Your task to perform on an android device: Go to accessibility settings Image 0: 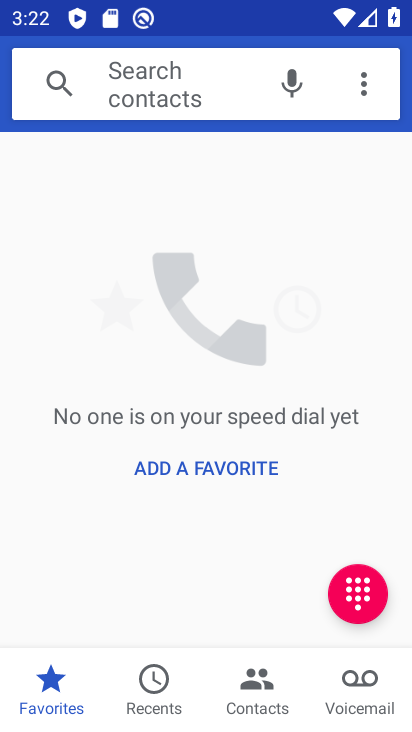
Step 0: press home button
Your task to perform on an android device: Go to accessibility settings Image 1: 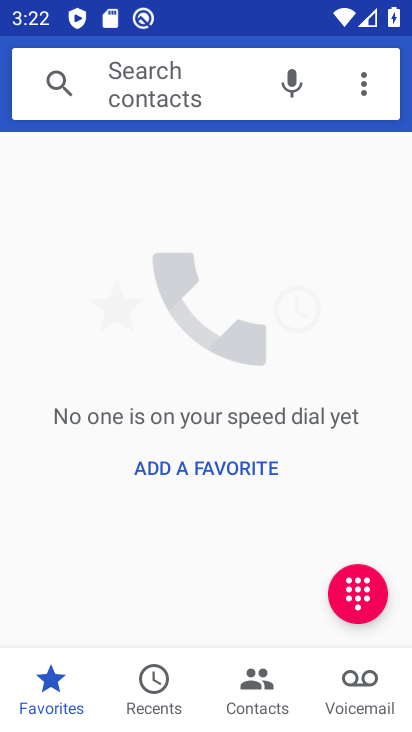
Step 1: press home button
Your task to perform on an android device: Go to accessibility settings Image 2: 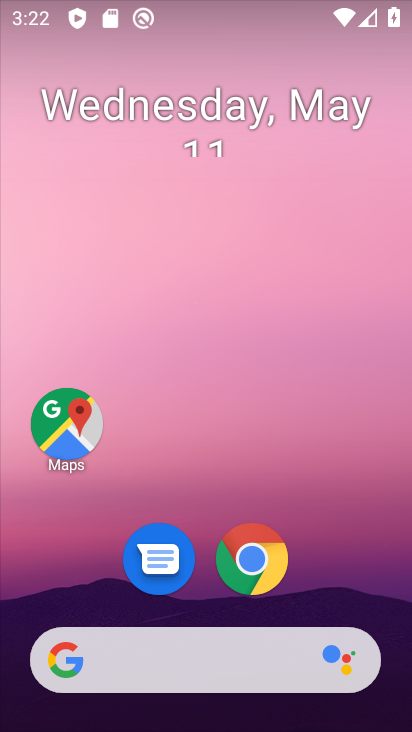
Step 2: drag from (351, 598) to (191, 242)
Your task to perform on an android device: Go to accessibility settings Image 3: 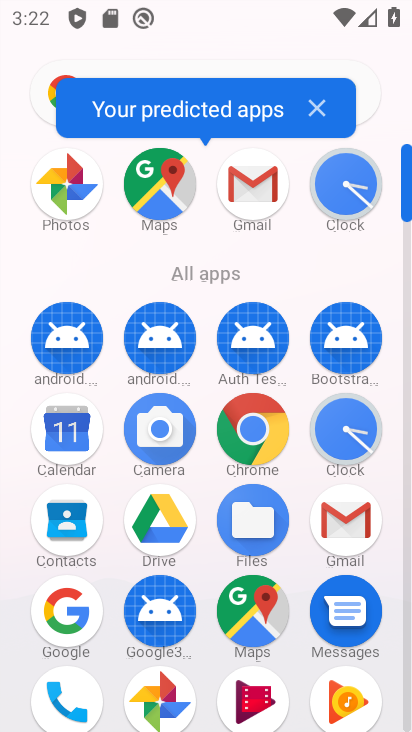
Step 3: drag from (283, 528) to (245, 239)
Your task to perform on an android device: Go to accessibility settings Image 4: 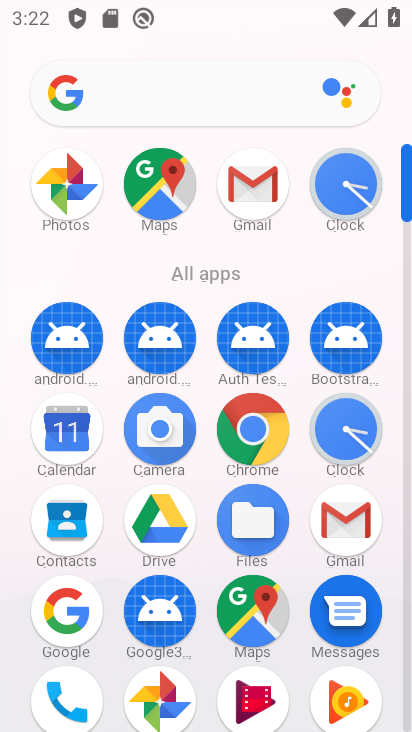
Step 4: drag from (307, 492) to (282, 181)
Your task to perform on an android device: Go to accessibility settings Image 5: 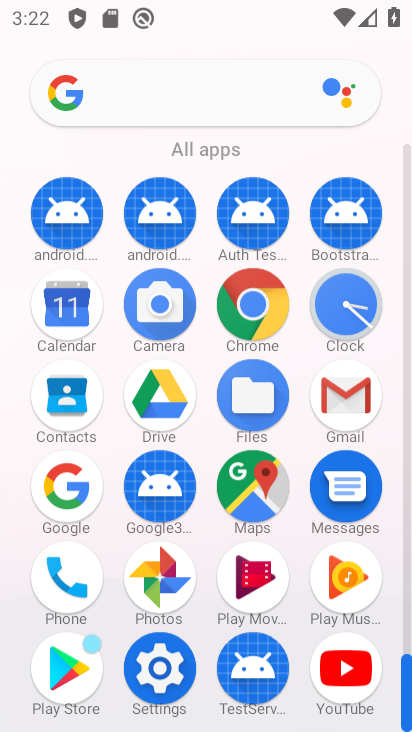
Step 5: drag from (288, 479) to (257, 272)
Your task to perform on an android device: Go to accessibility settings Image 6: 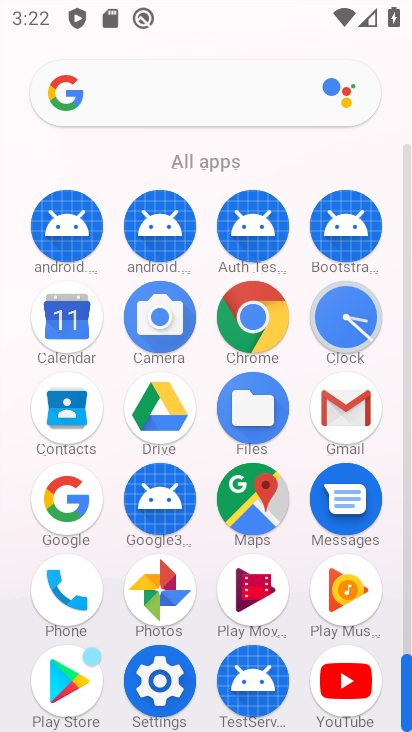
Step 6: click (167, 669)
Your task to perform on an android device: Go to accessibility settings Image 7: 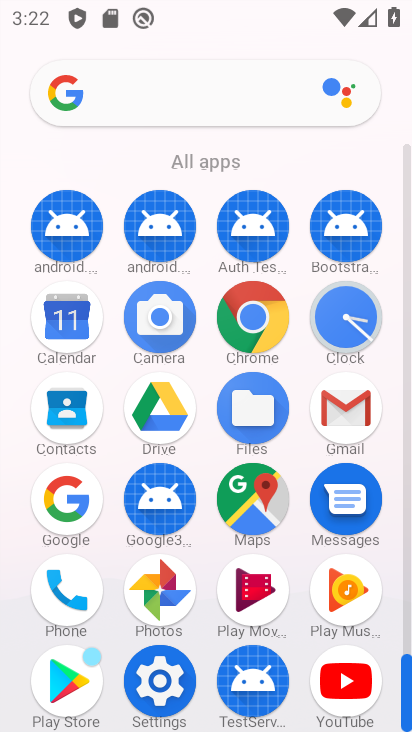
Step 7: click (160, 693)
Your task to perform on an android device: Go to accessibility settings Image 8: 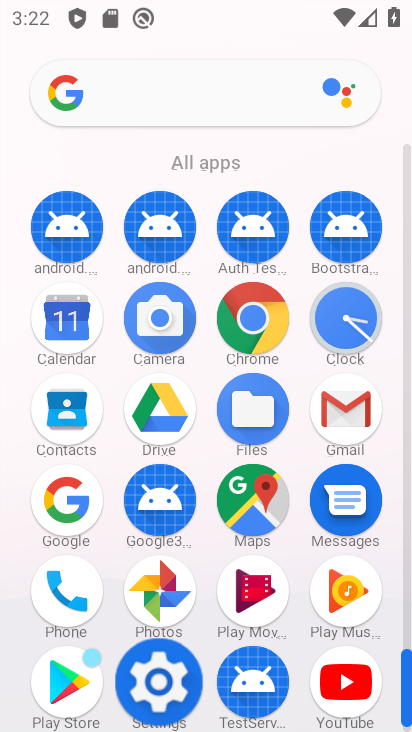
Step 8: click (159, 692)
Your task to perform on an android device: Go to accessibility settings Image 9: 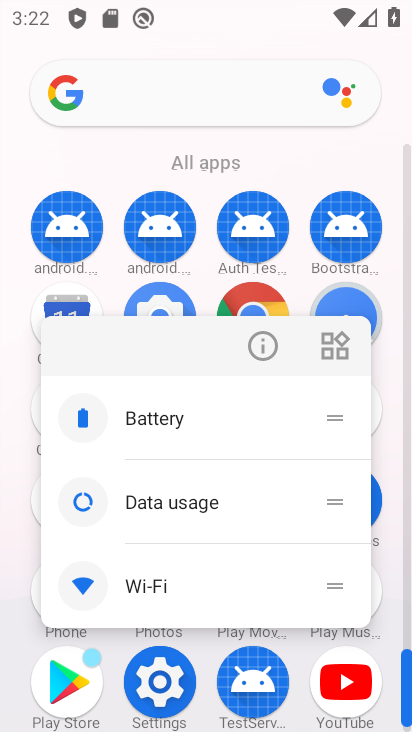
Step 9: click (159, 692)
Your task to perform on an android device: Go to accessibility settings Image 10: 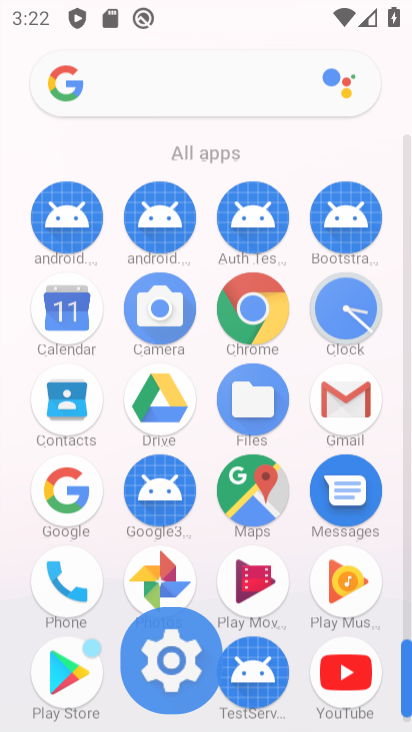
Step 10: click (178, 689)
Your task to perform on an android device: Go to accessibility settings Image 11: 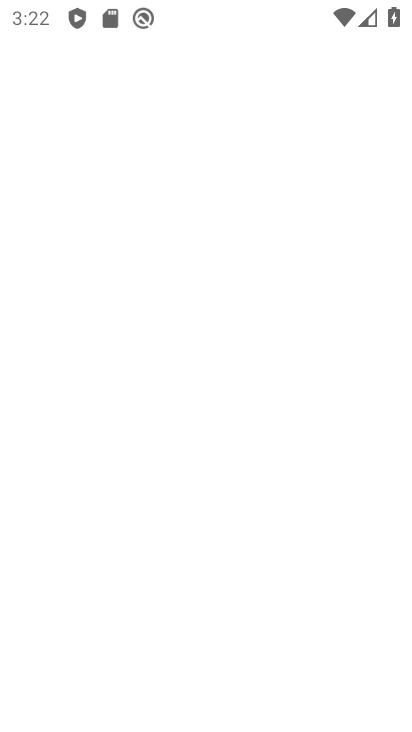
Step 11: click (174, 680)
Your task to perform on an android device: Go to accessibility settings Image 12: 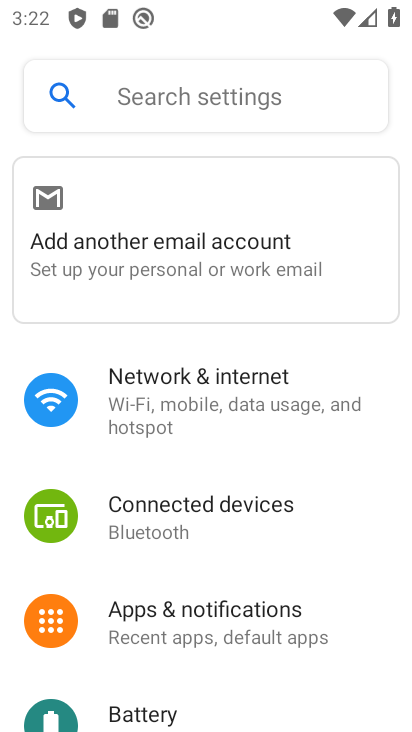
Step 12: drag from (186, 573) to (147, 119)
Your task to perform on an android device: Go to accessibility settings Image 13: 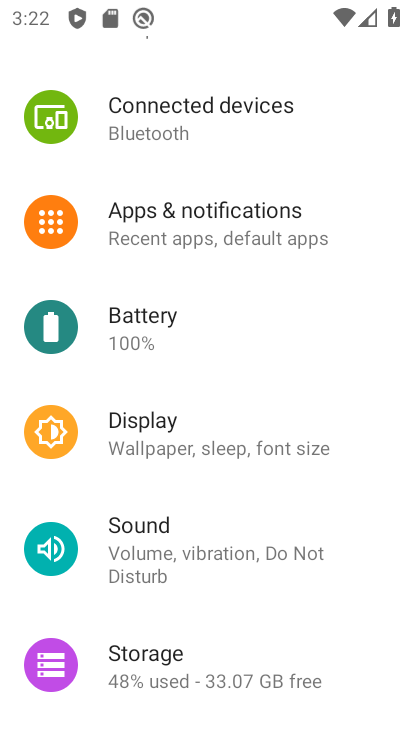
Step 13: drag from (205, 534) to (200, 177)
Your task to perform on an android device: Go to accessibility settings Image 14: 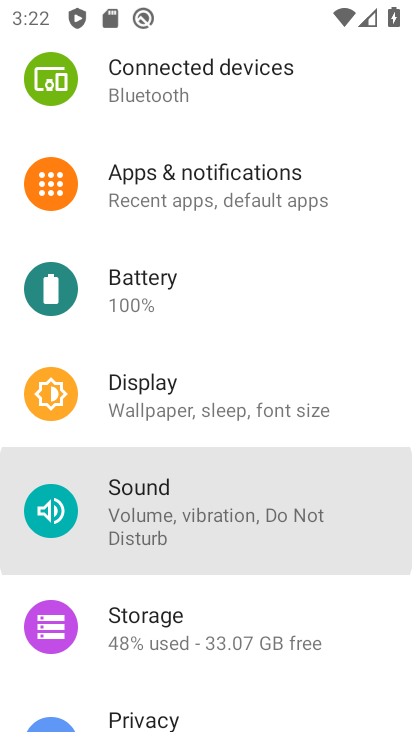
Step 14: drag from (253, 484) to (197, 89)
Your task to perform on an android device: Go to accessibility settings Image 15: 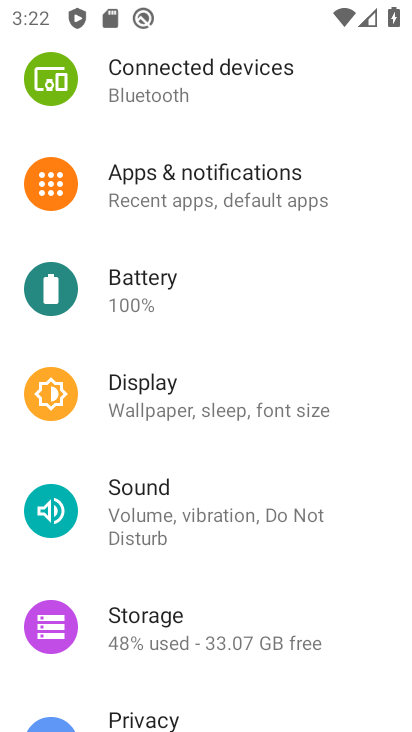
Step 15: drag from (207, 401) to (184, 173)
Your task to perform on an android device: Go to accessibility settings Image 16: 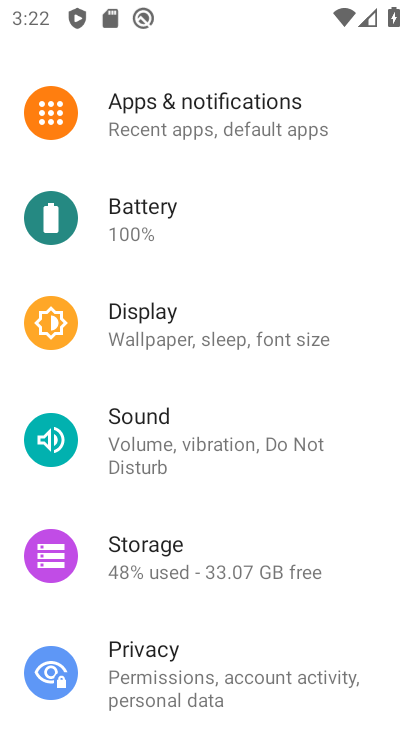
Step 16: drag from (193, 531) to (172, 211)
Your task to perform on an android device: Go to accessibility settings Image 17: 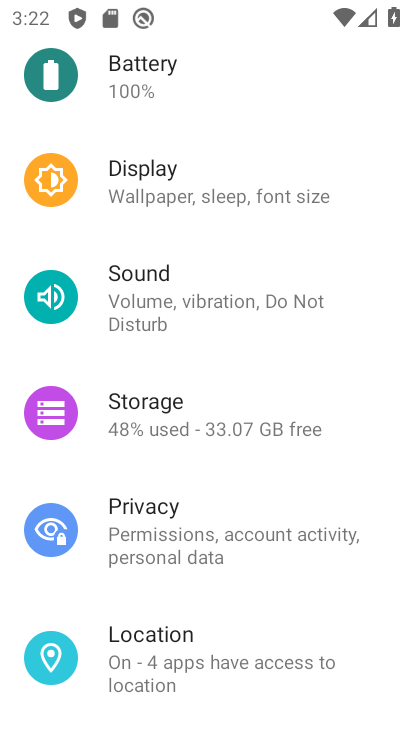
Step 17: drag from (230, 442) to (220, 50)
Your task to perform on an android device: Go to accessibility settings Image 18: 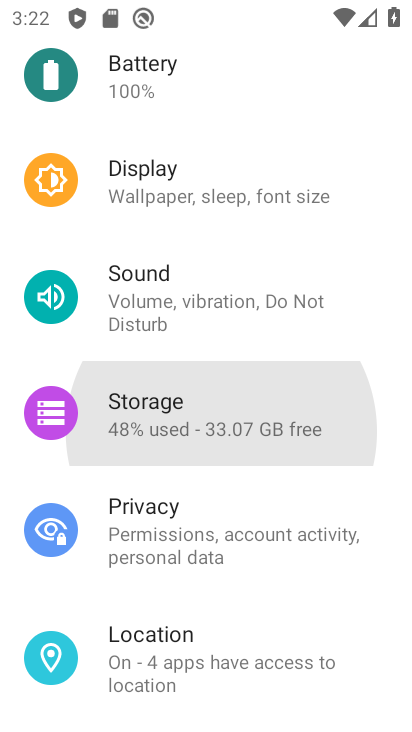
Step 18: drag from (229, 494) to (210, 149)
Your task to perform on an android device: Go to accessibility settings Image 19: 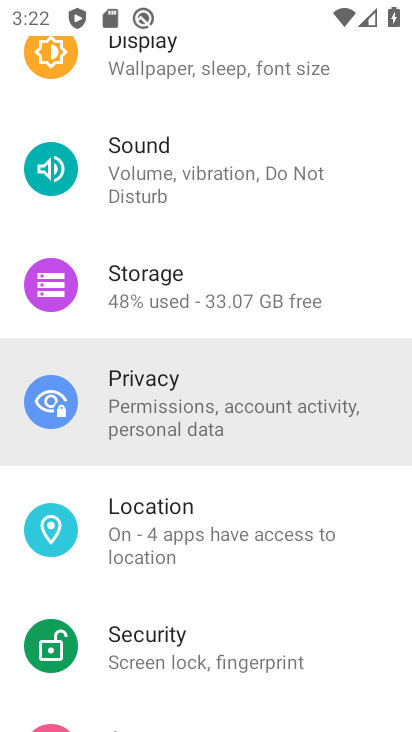
Step 19: drag from (197, 506) to (152, 181)
Your task to perform on an android device: Go to accessibility settings Image 20: 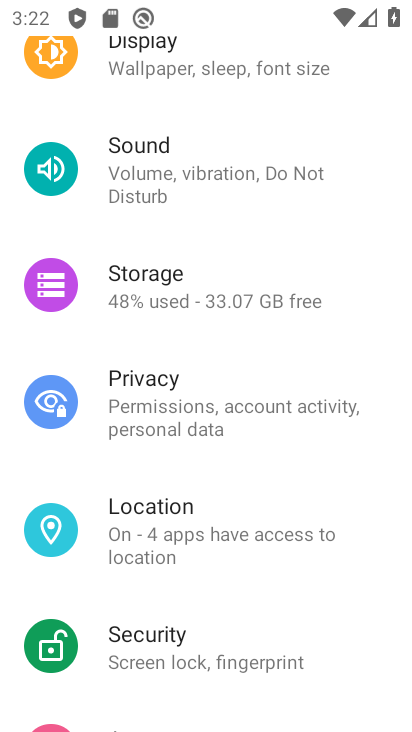
Step 20: drag from (168, 585) to (151, 180)
Your task to perform on an android device: Go to accessibility settings Image 21: 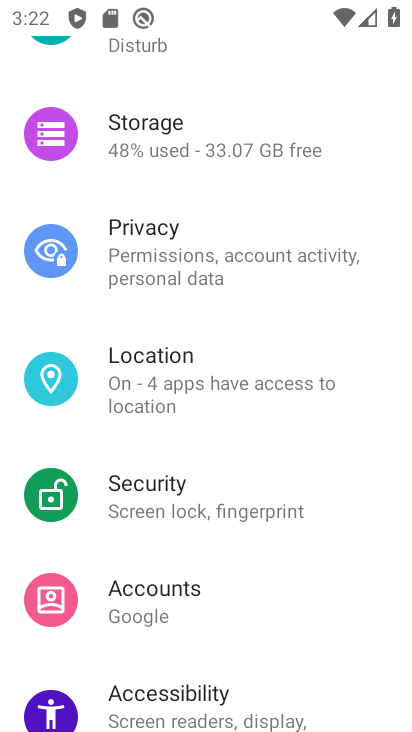
Step 21: drag from (240, 582) to (195, 222)
Your task to perform on an android device: Go to accessibility settings Image 22: 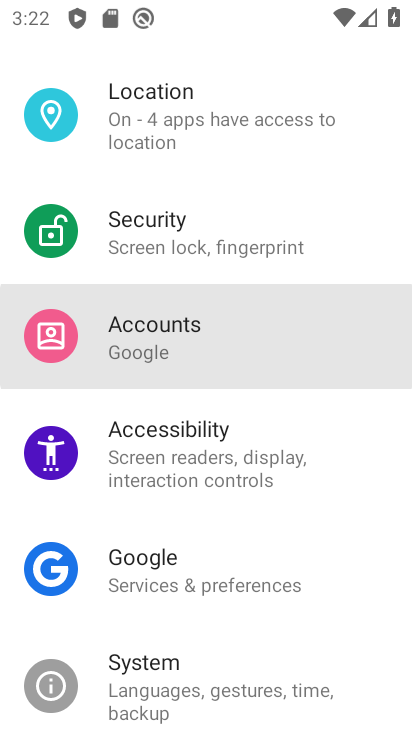
Step 22: drag from (186, 539) to (84, 26)
Your task to perform on an android device: Go to accessibility settings Image 23: 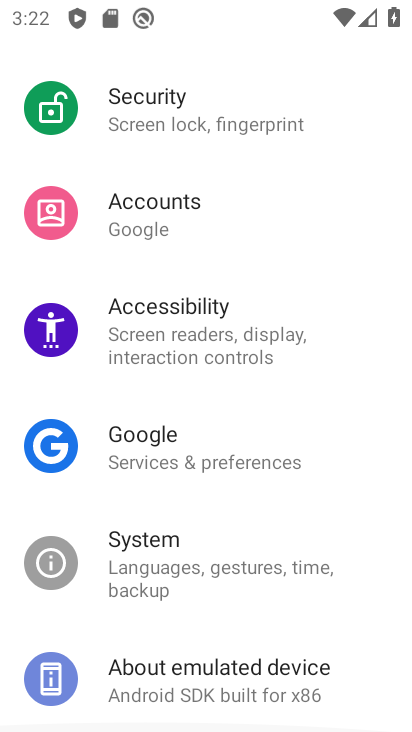
Step 23: drag from (202, 526) to (179, 20)
Your task to perform on an android device: Go to accessibility settings Image 24: 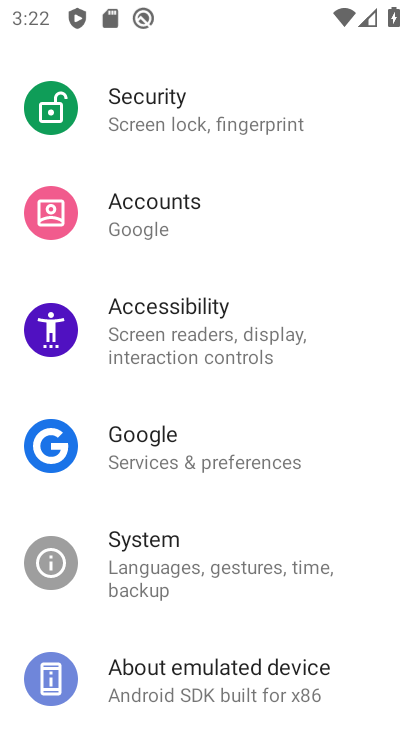
Step 24: click (163, 325)
Your task to perform on an android device: Go to accessibility settings Image 25: 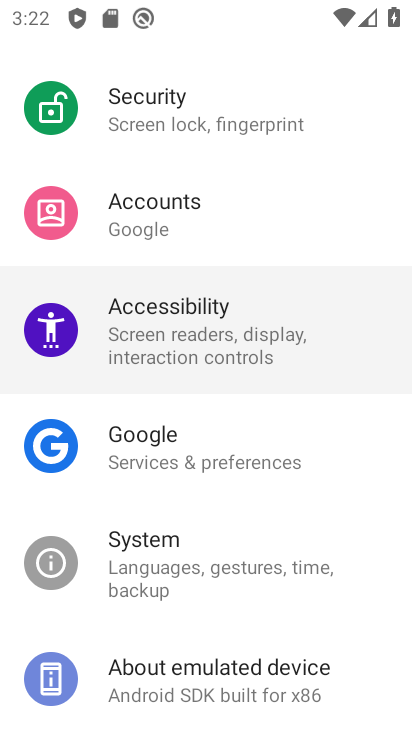
Step 25: click (163, 325)
Your task to perform on an android device: Go to accessibility settings Image 26: 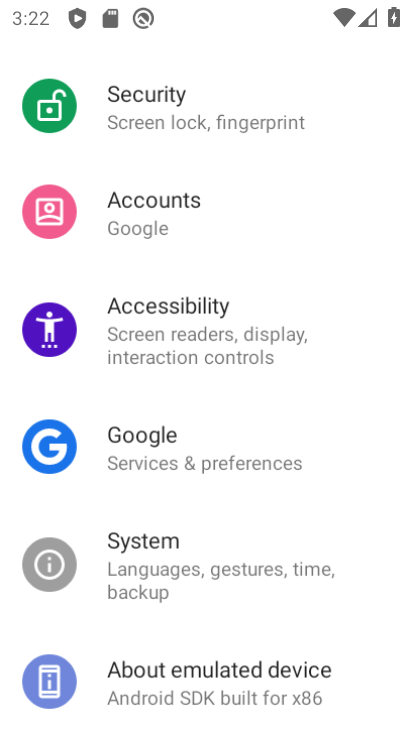
Step 26: click (166, 333)
Your task to perform on an android device: Go to accessibility settings Image 27: 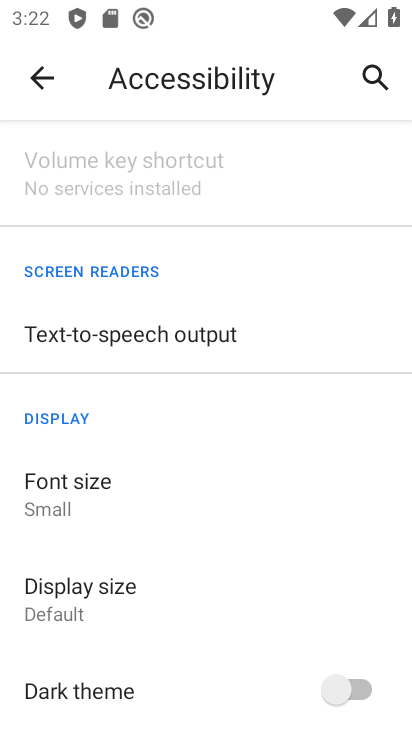
Step 27: task complete